Your task to perform on an android device: find snoozed emails in the gmail app Image 0: 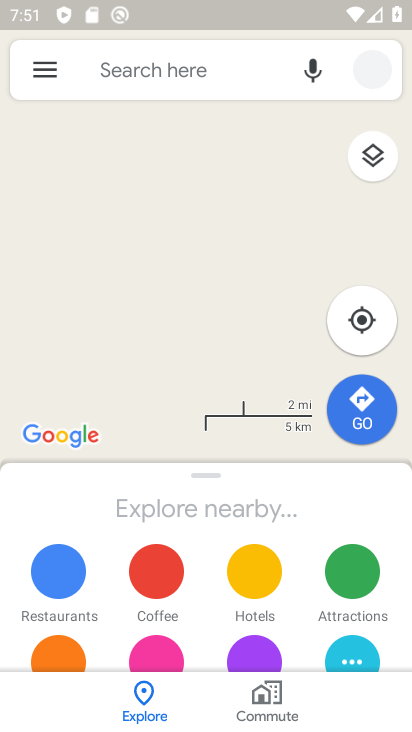
Step 0: press home button
Your task to perform on an android device: find snoozed emails in the gmail app Image 1: 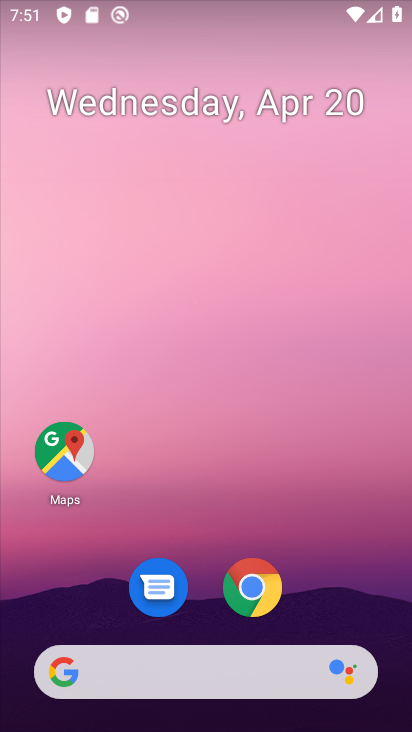
Step 1: drag from (323, 569) to (344, 198)
Your task to perform on an android device: find snoozed emails in the gmail app Image 2: 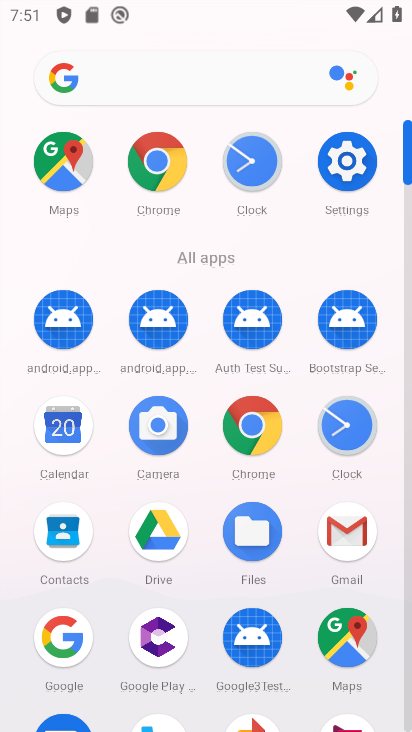
Step 2: click (344, 534)
Your task to perform on an android device: find snoozed emails in the gmail app Image 3: 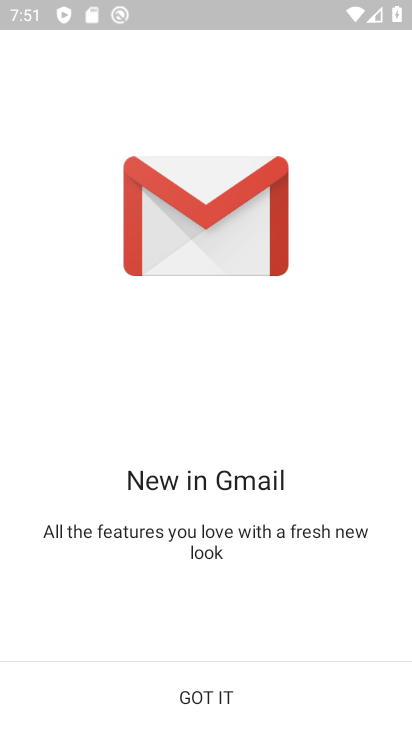
Step 3: click (219, 702)
Your task to perform on an android device: find snoozed emails in the gmail app Image 4: 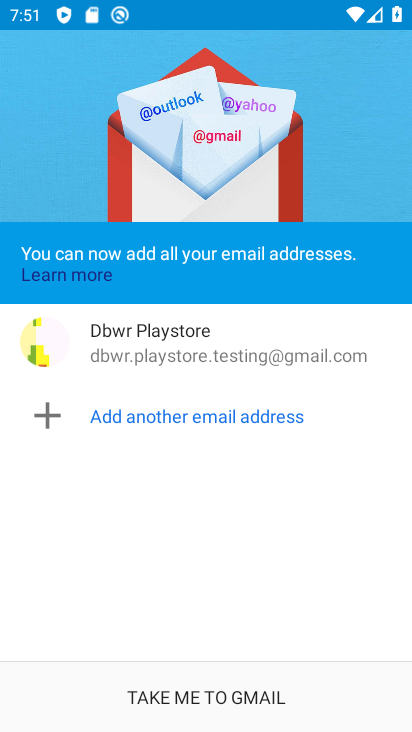
Step 4: click (266, 695)
Your task to perform on an android device: find snoozed emails in the gmail app Image 5: 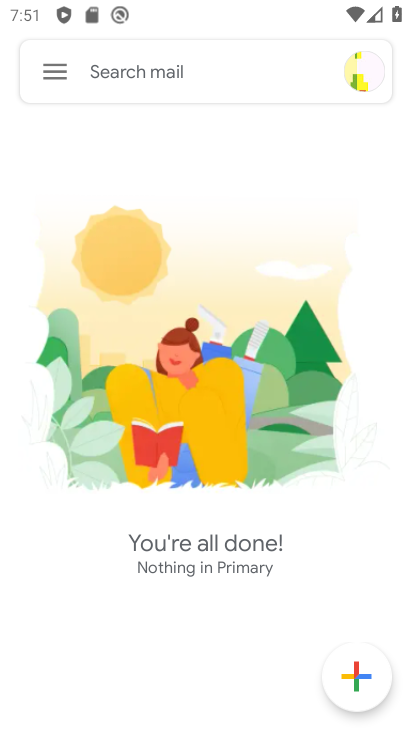
Step 5: click (59, 75)
Your task to perform on an android device: find snoozed emails in the gmail app Image 6: 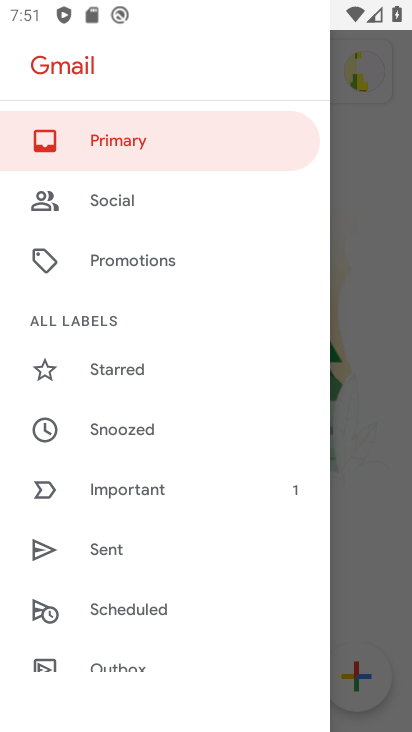
Step 6: click (146, 429)
Your task to perform on an android device: find snoozed emails in the gmail app Image 7: 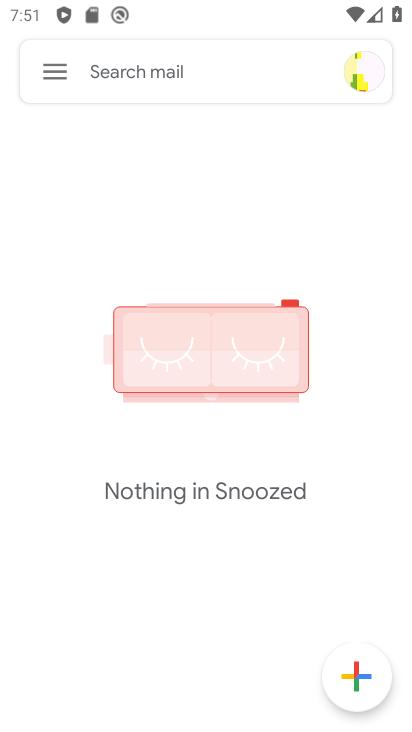
Step 7: task complete